Your task to perform on an android device: Go to calendar. Show me events next week Image 0: 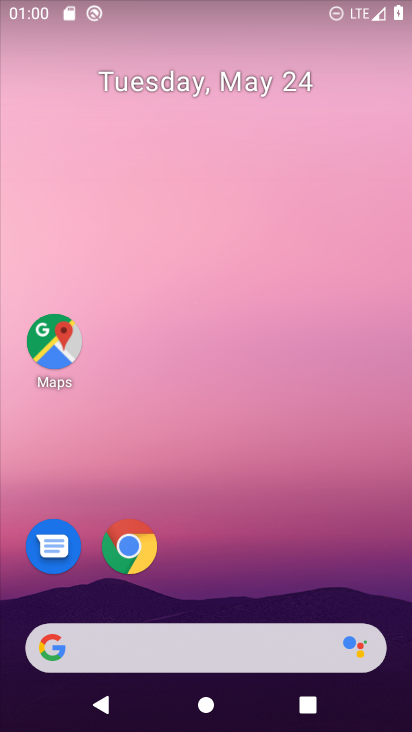
Step 0: drag from (280, 650) to (267, 33)
Your task to perform on an android device: Go to calendar. Show me events next week Image 1: 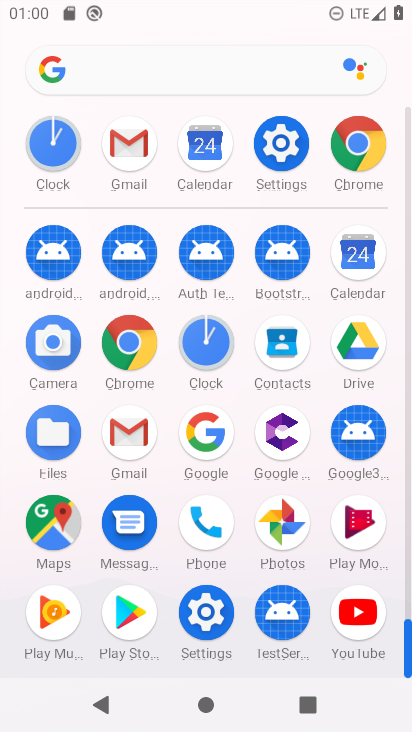
Step 1: click (346, 257)
Your task to perform on an android device: Go to calendar. Show me events next week Image 2: 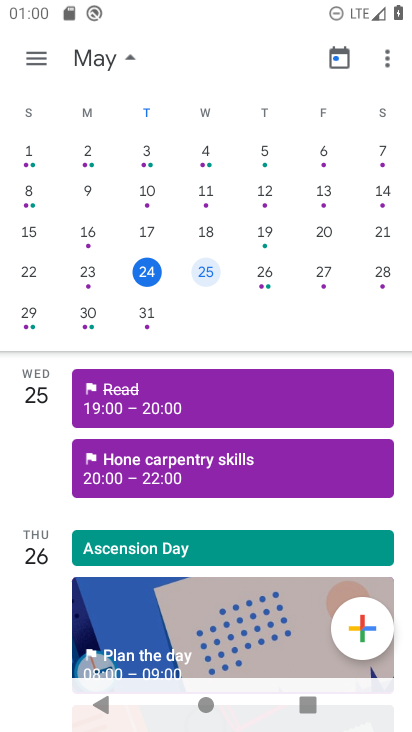
Step 2: click (133, 56)
Your task to perform on an android device: Go to calendar. Show me events next week Image 3: 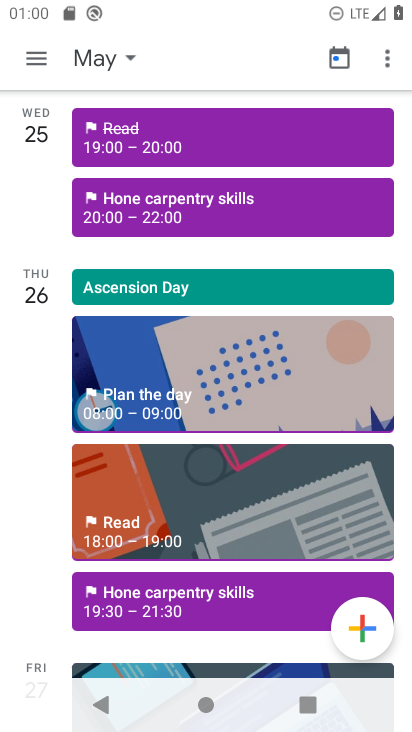
Step 3: click (124, 60)
Your task to perform on an android device: Go to calendar. Show me events next week Image 4: 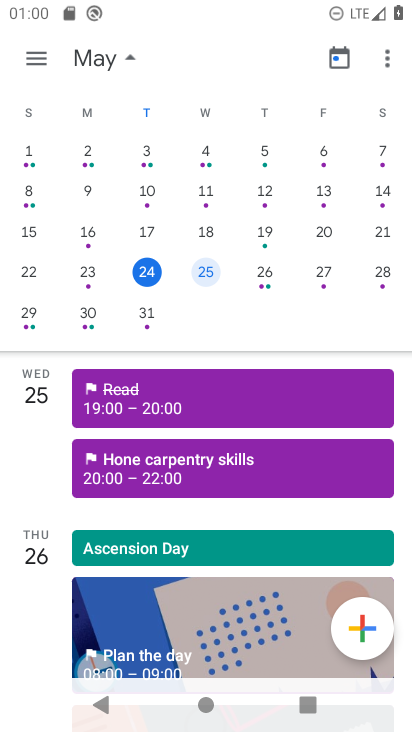
Step 4: click (371, 278)
Your task to perform on an android device: Go to calendar. Show me events next week Image 5: 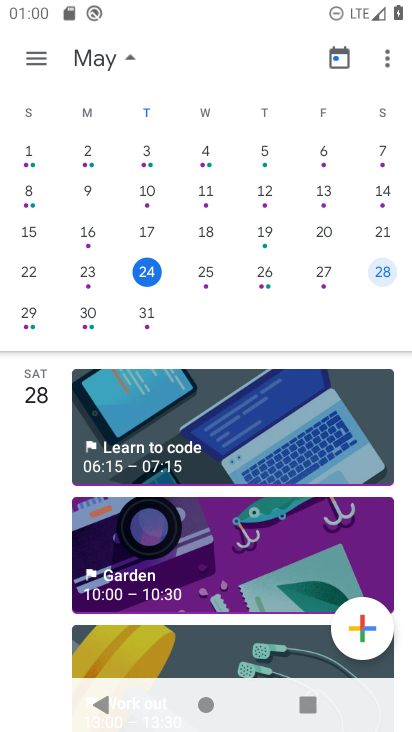
Step 5: task complete